Your task to perform on an android device: Turn off the flashlight Image 0: 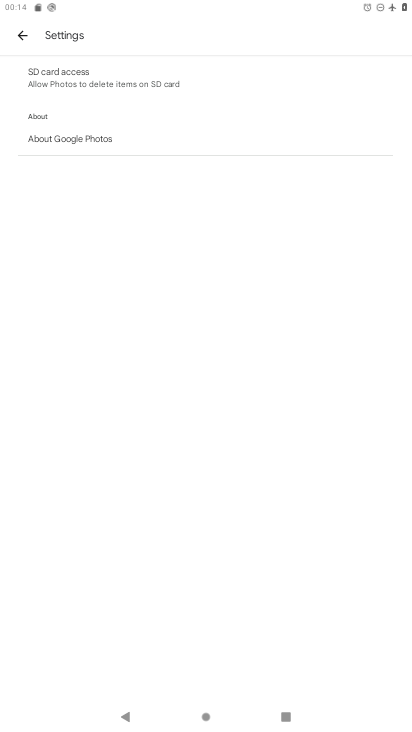
Step 0: press home button
Your task to perform on an android device: Turn off the flashlight Image 1: 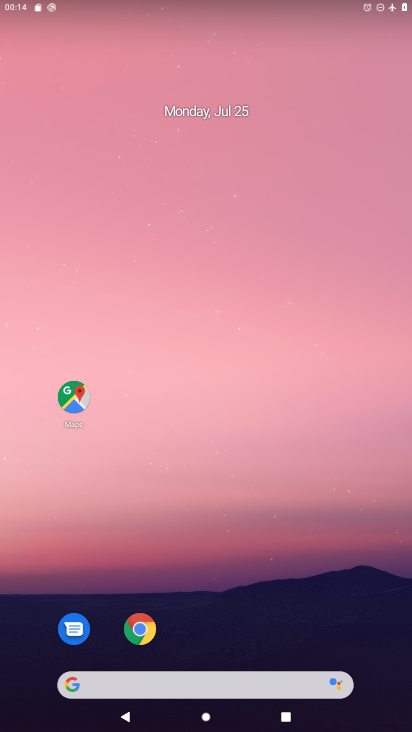
Step 1: drag from (189, 632) to (268, 294)
Your task to perform on an android device: Turn off the flashlight Image 2: 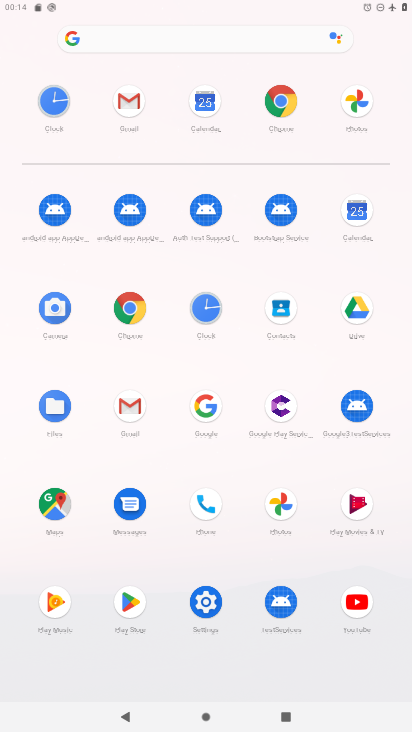
Step 2: click (200, 598)
Your task to perform on an android device: Turn off the flashlight Image 3: 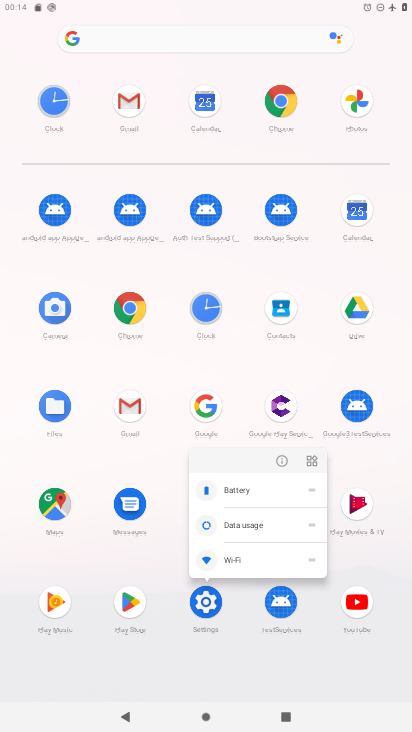
Step 3: click (279, 457)
Your task to perform on an android device: Turn off the flashlight Image 4: 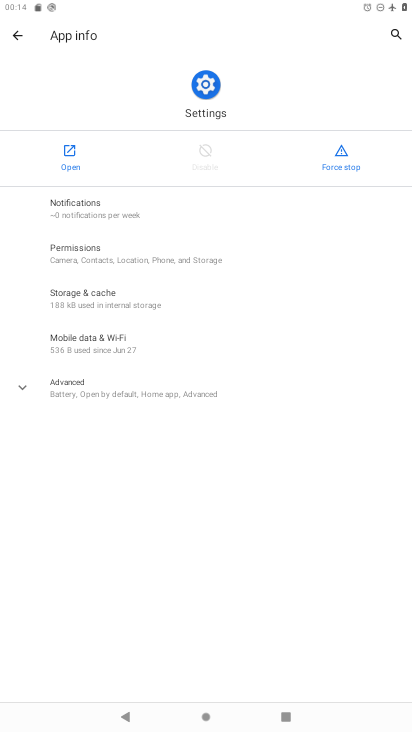
Step 4: click (77, 147)
Your task to perform on an android device: Turn off the flashlight Image 5: 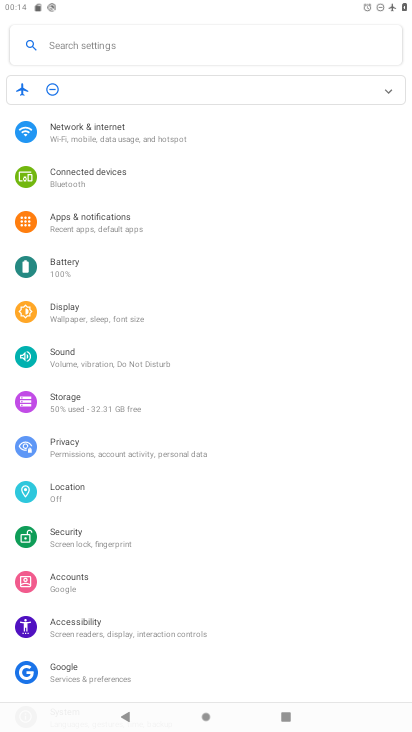
Step 5: click (79, 41)
Your task to perform on an android device: Turn off the flashlight Image 6: 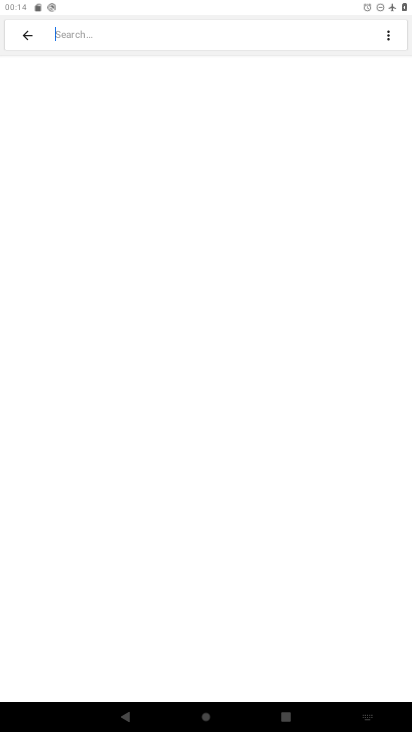
Step 6: type "flashlight"
Your task to perform on an android device: Turn off the flashlight Image 7: 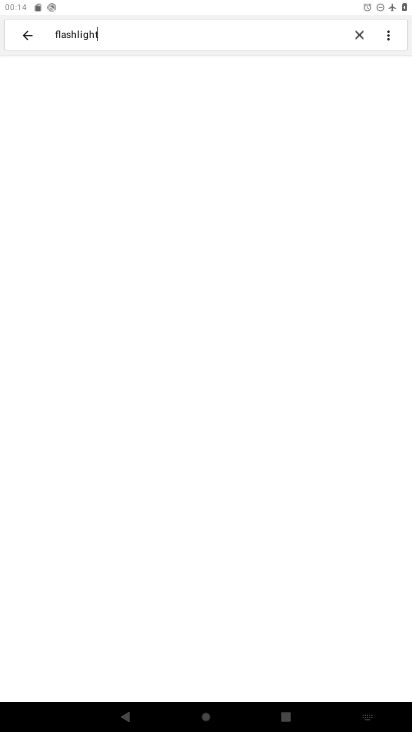
Step 7: type ""
Your task to perform on an android device: Turn off the flashlight Image 8: 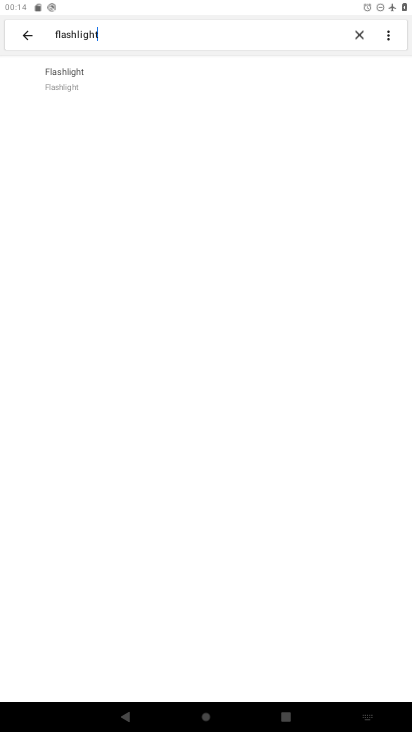
Step 8: click (84, 81)
Your task to perform on an android device: Turn off the flashlight Image 9: 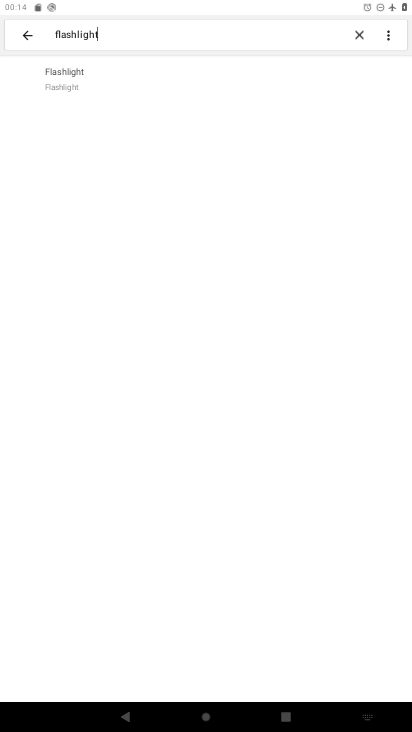
Step 9: task complete